Your task to perform on an android device: Empty the shopping cart on ebay. Add alienware aurora to the cart on ebay Image 0: 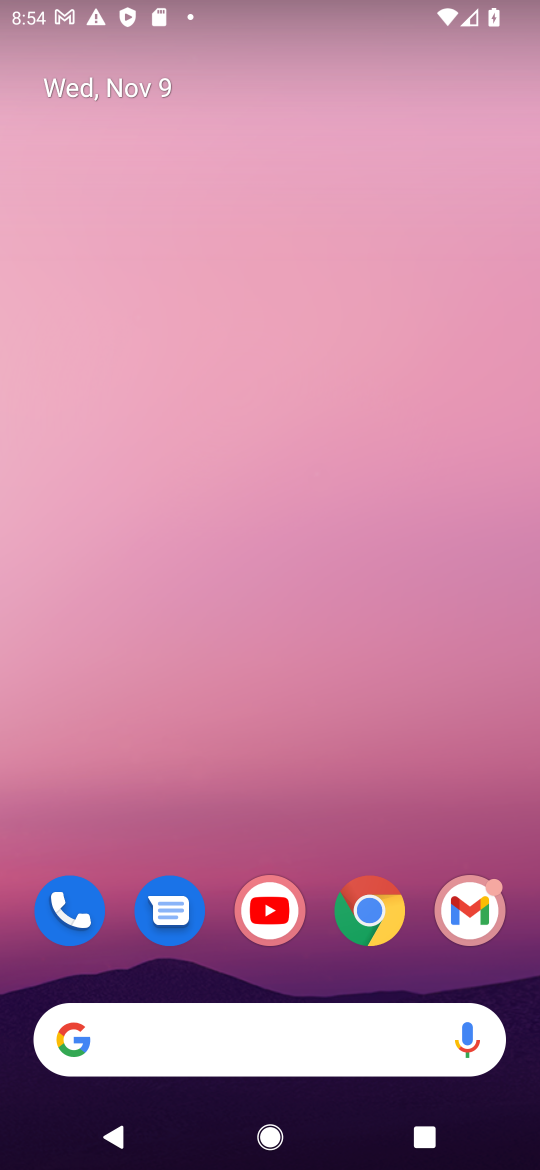
Step 0: click (369, 912)
Your task to perform on an android device: Empty the shopping cart on ebay. Add alienware aurora to the cart on ebay Image 1: 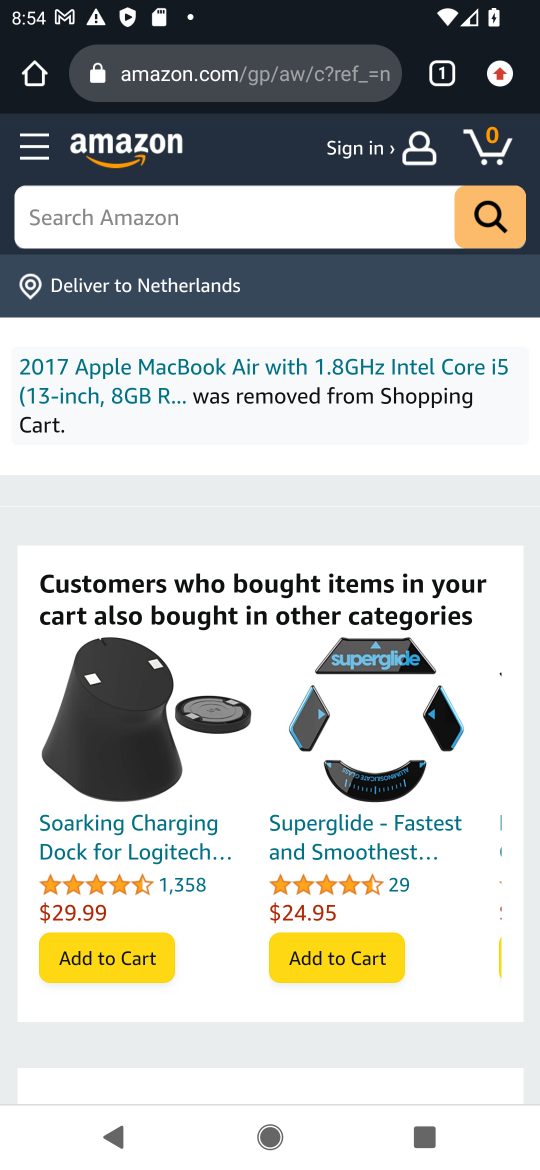
Step 1: click (209, 89)
Your task to perform on an android device: Empty the shopping cart on ebay. Add alienware aurora to the cart on ebay Image 2: 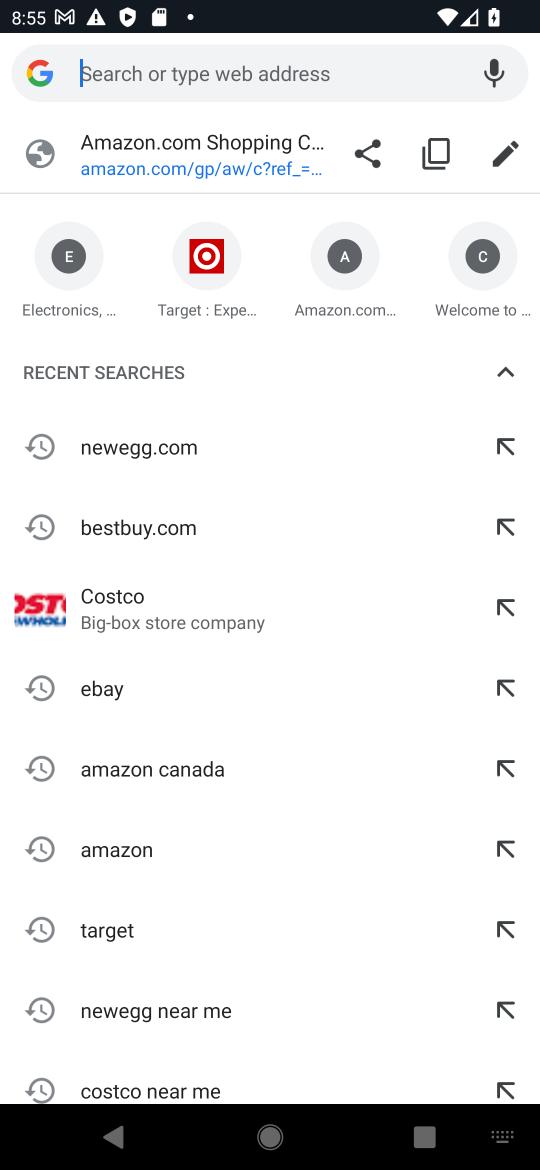
Step 2: type "ebay.com"
Your task to perform on an android device: Empty the shopping cart on ebay. Add alienware aurora to the cart on ebay Image 3: 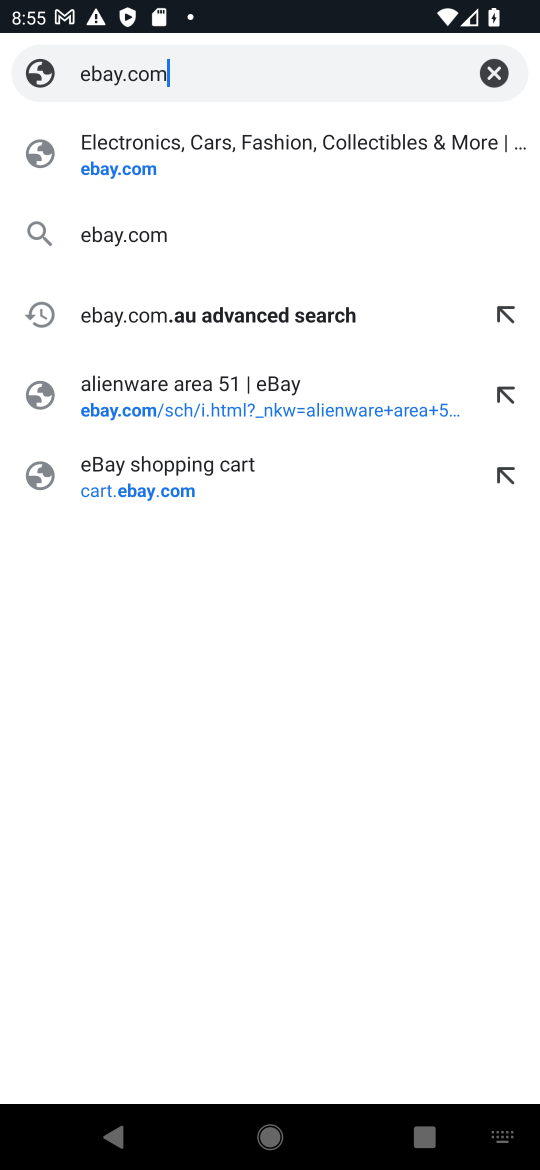
Step 3: click (82, 172)
Your task to perform on an android device: Empty the shopping cart on ebay. Add alienware aurora to the cart on ebay Image 4: 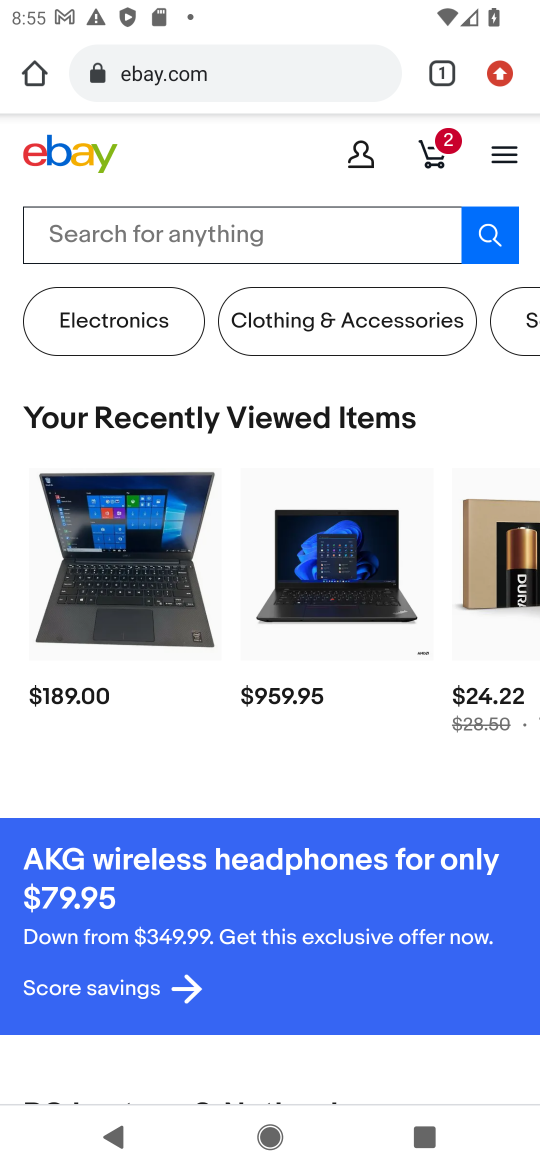
Step 4: click (436, 151)
Your task to perform on an android device: Empty the shopping cart on ebay. Add alienware aurora to the cart on ebay Image 5: 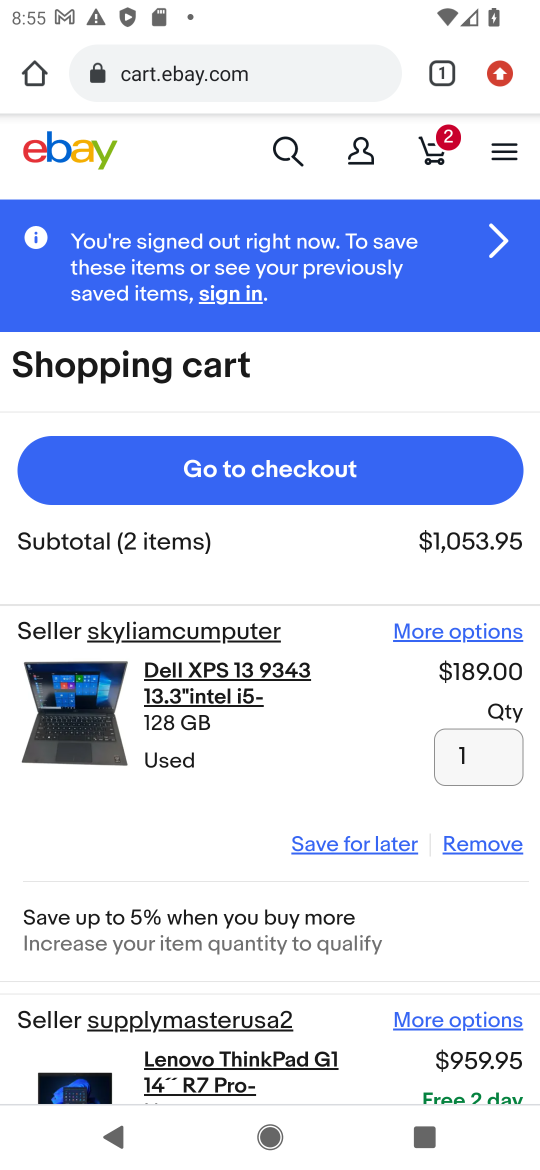
Step 5: click (454, 845)
Your task to perform on an android device: Empty the shopping cart on ebay. Add alienware aurora to the cart on ebay Image 6: 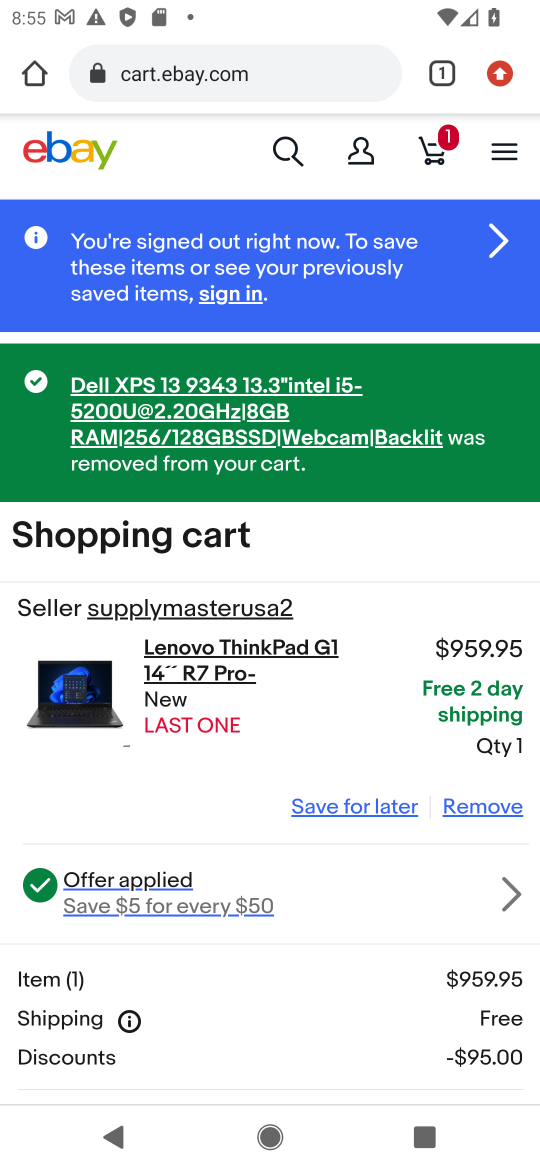
Step 6: click (470, 814)
Your task to perform on an android device: Empty the shopping cart on ebay. Add alienware aurora to the cart on ebay Image 7: 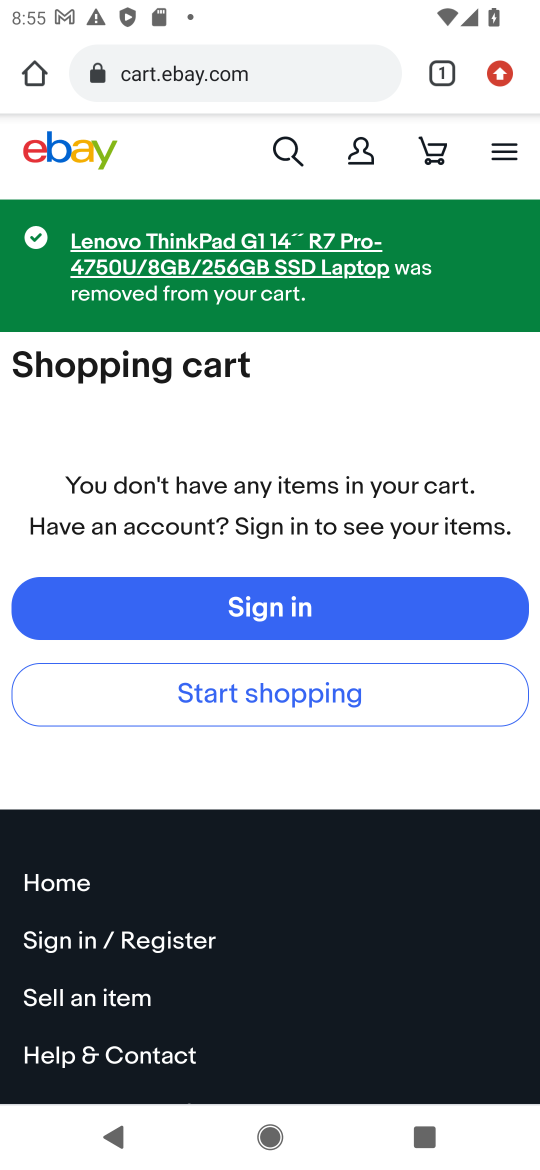
Step 7: click (291, 141)
Your task to perform on an android device: Empty the shopping cart on ebay. Add alienware aurora to the cart on ebay Image 8: 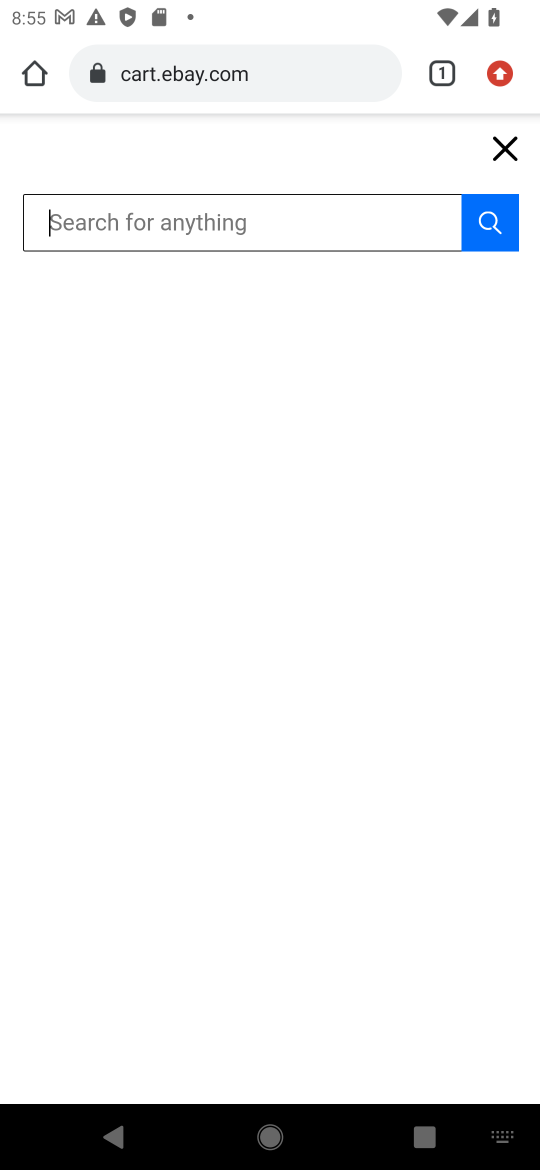
Step 8: type " alienware aurora"
Your task to perform on an android device: Empty the shopping cart on ebay. Add alienware aurora to the cart on ebay Image 9: 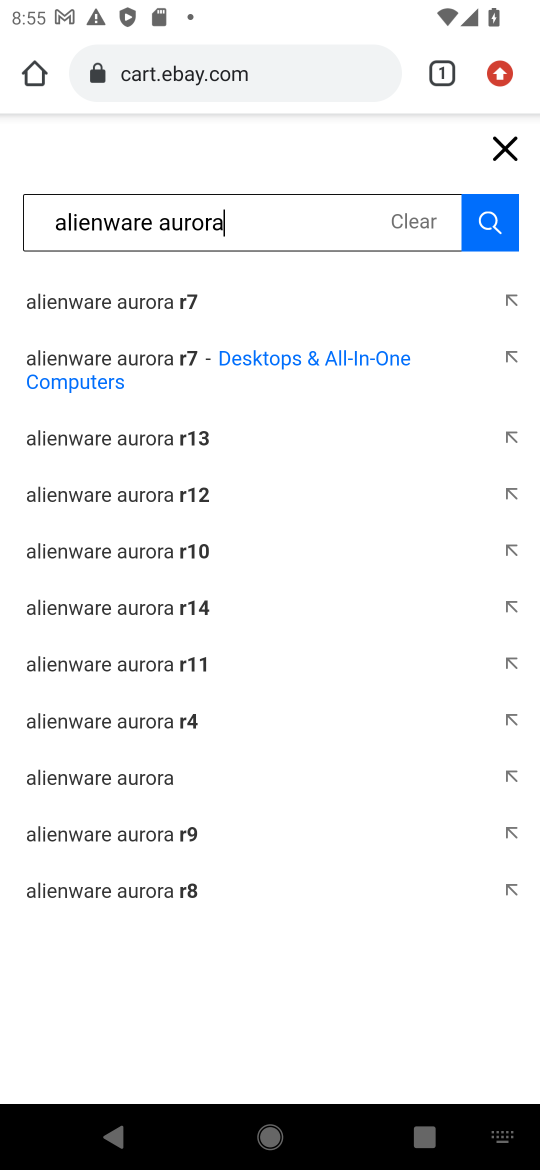
Step 9: click (104, 784)
Your task to perform on an android device: Empty the shopping cart on ebay. Add alienware aurora to the cart on ebay Image 10: 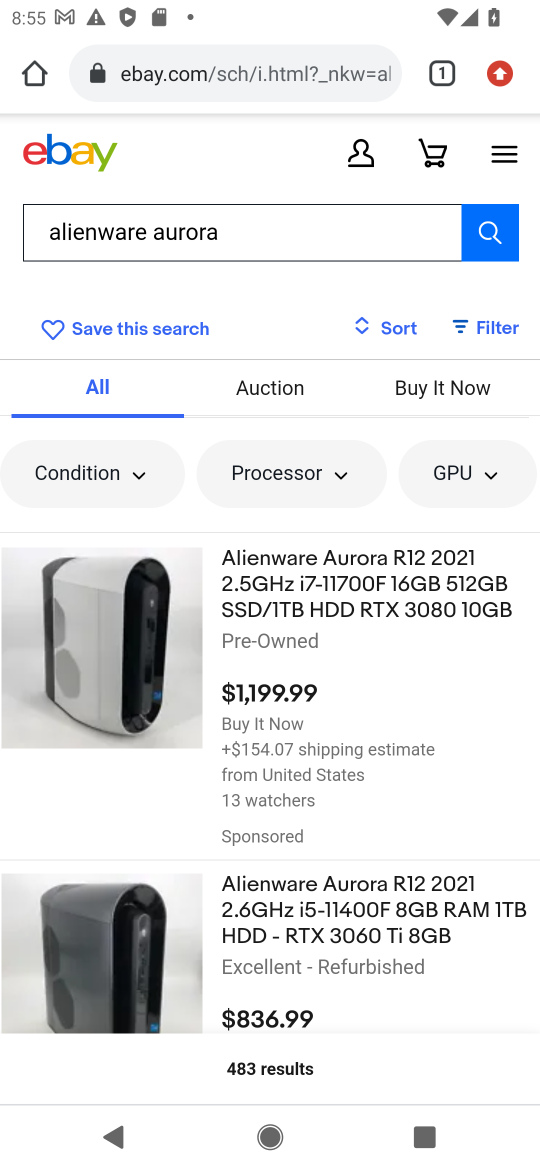
Step 10: click (145, 633)
Your task to perform on an android device: Empty the shopping cart on ebay. Add alienware aurora to the cart on ebay Image 11: 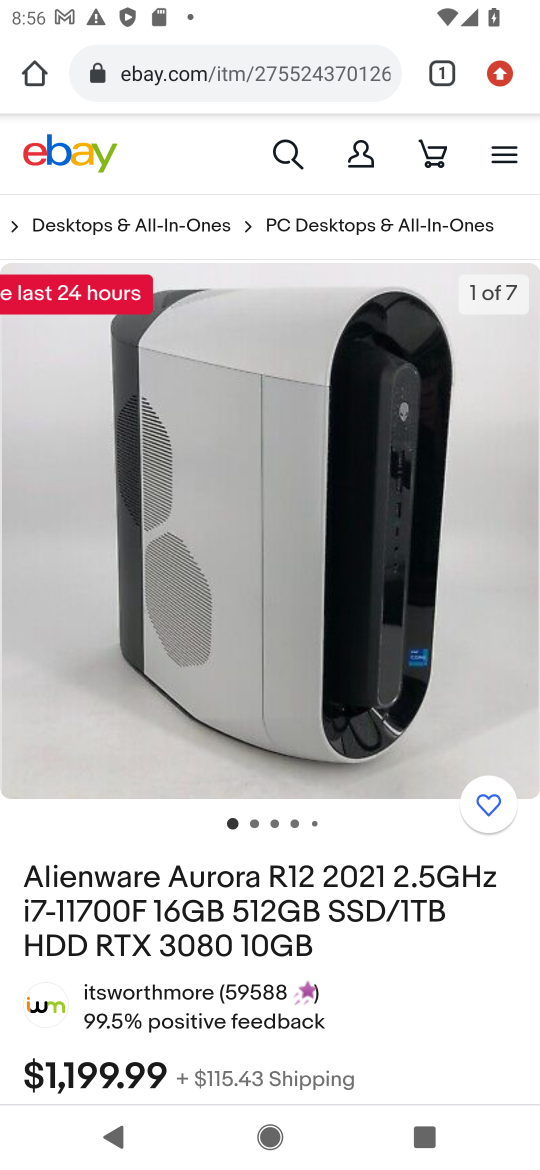
Step 11: drag from (245, 770) to (219, 349)
Your task to perform on an android device: Empty the shopping cart on ebay. Add alienware aurora to the cart on ebay Image 12: 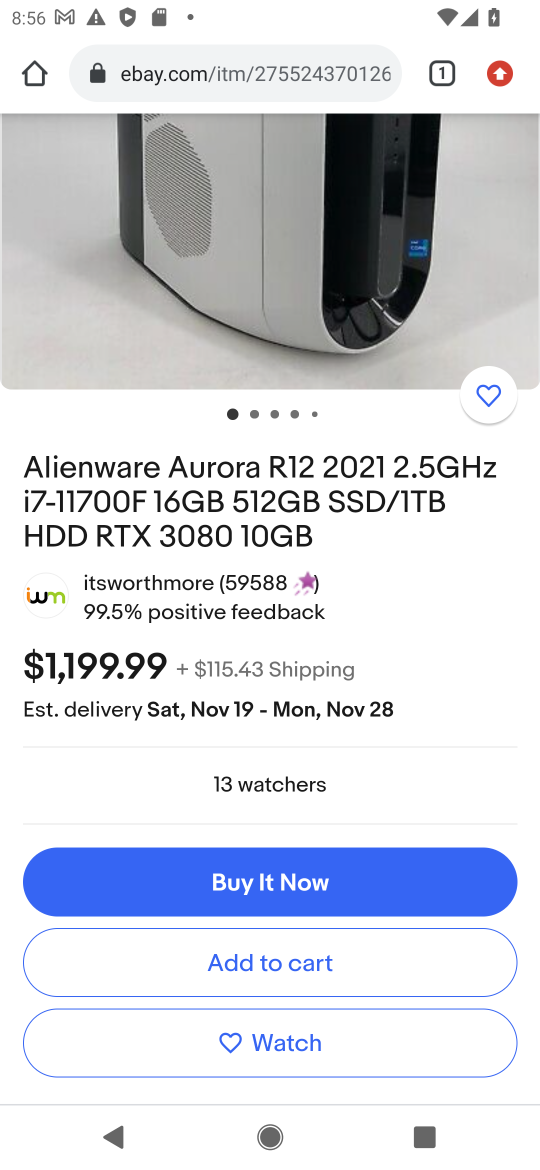
Step 12: click (254, 950)
Your task to perform on an android device: Empty the shopping cart on ebay. Add alienware aurora to the cart on ebay Image 13: 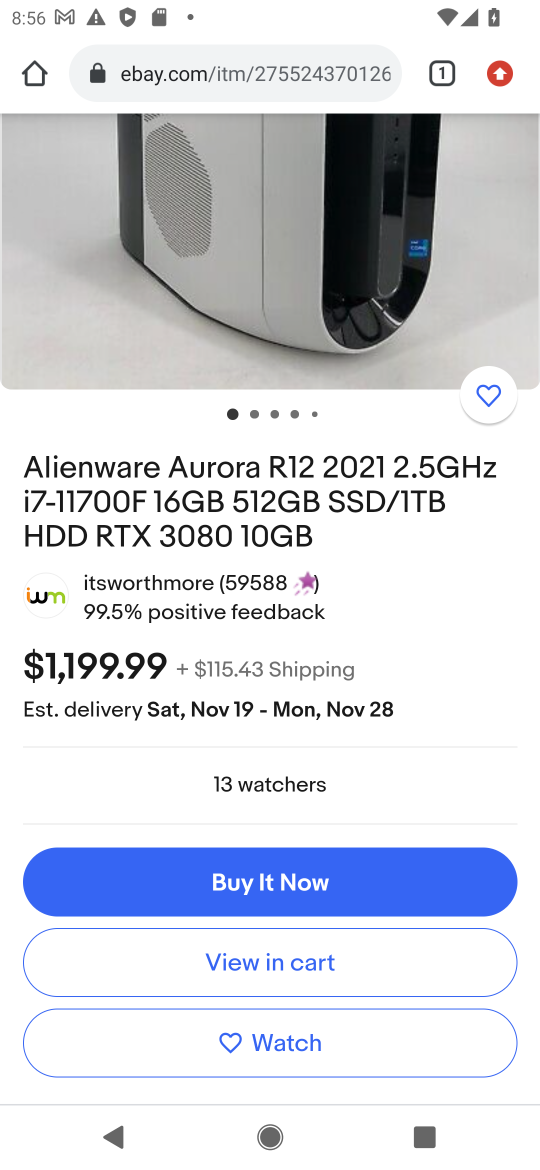
Step 13: task complete